Your task to perform on an android device: Open the stopwatch Image 0: 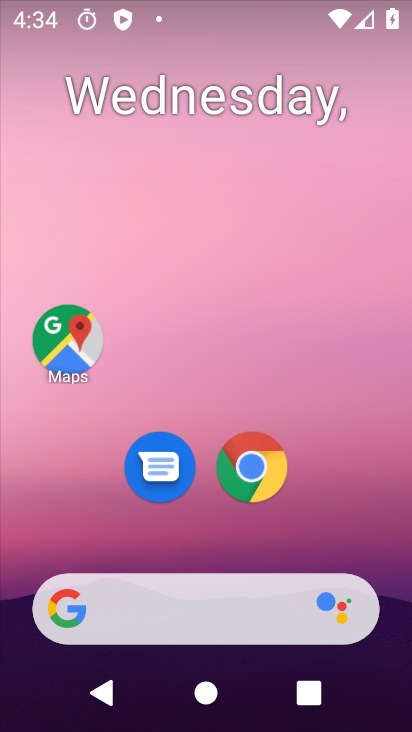
Step 0: drag from (394, 679) to (396, 178)
Your task to perform on an android device: Open the stopwatch Image 1: 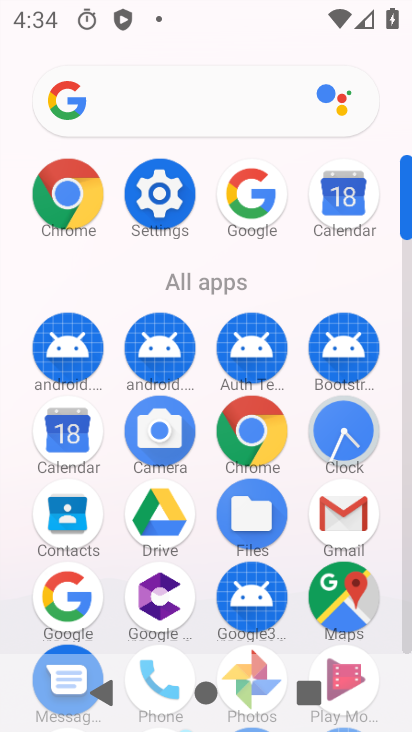
Step 1: click (334, 434)
Your task to perform on an android device: Open the stopwatch Image 2: 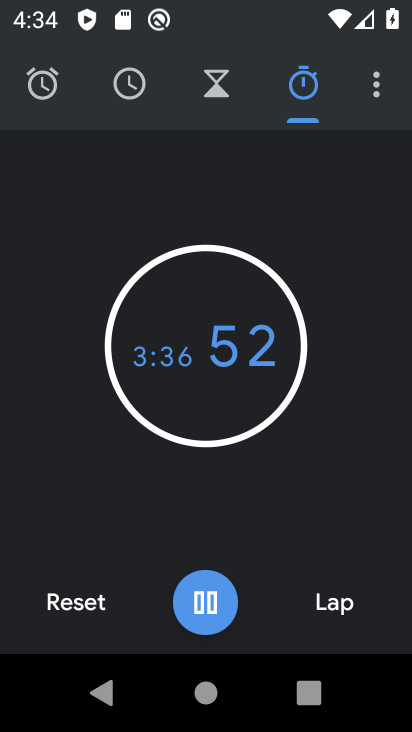
Step 2: click (198, 608)
Your task to perform on an android device: Open the stopwatch Image 3: 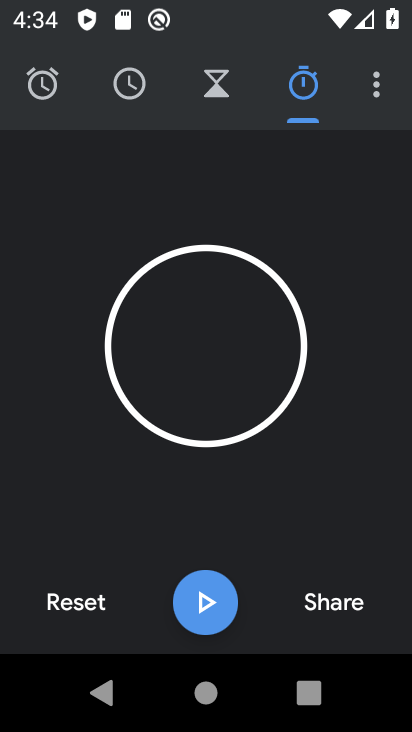
Step 3: click (97, 604)
Your task to perform on an android device: Open the stopwatch Image 4: 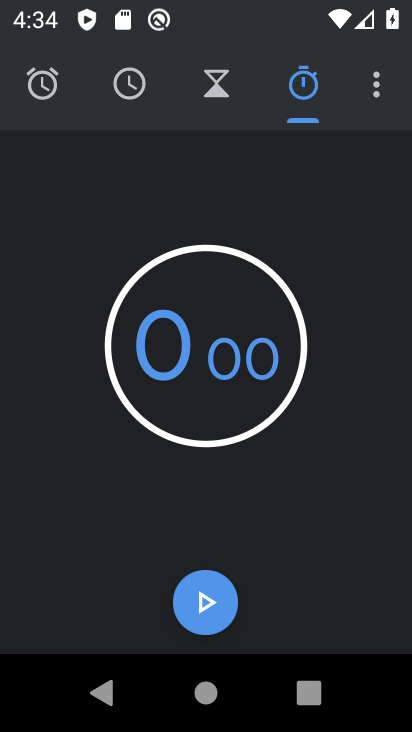
Step 4: task complete